Your task to perform on an android device: see sites visited before in the chrome app Image 0: 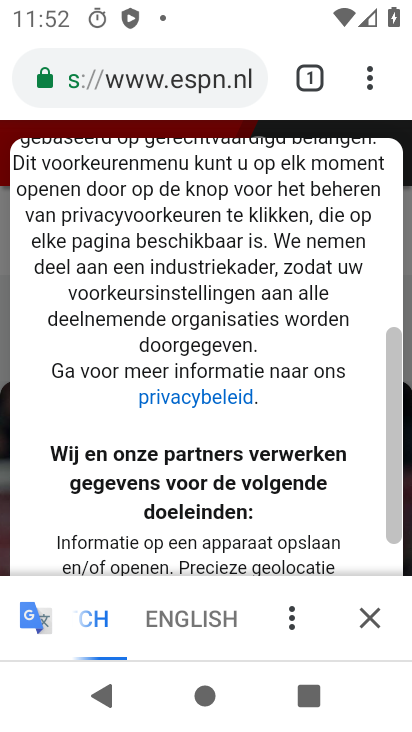
Step 0: drag from (373, 71) to (92, 456)
Your task to perform on an android device: see sites visited before in the chrome app Image 1: 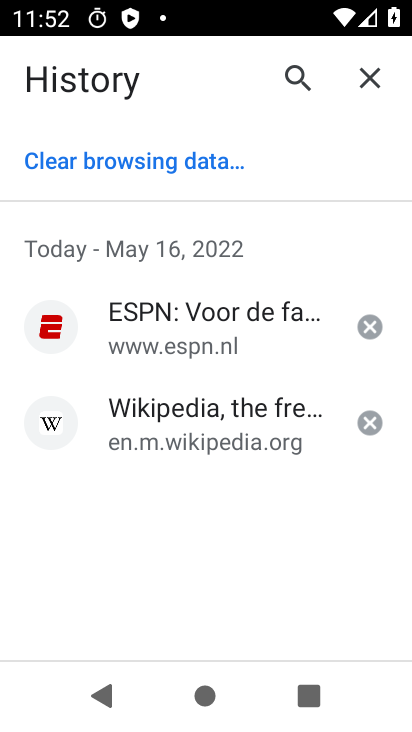
Step 1: task complete